Your task to perform on an android device: Open Google Maps and go to "Timeline" Image 0: 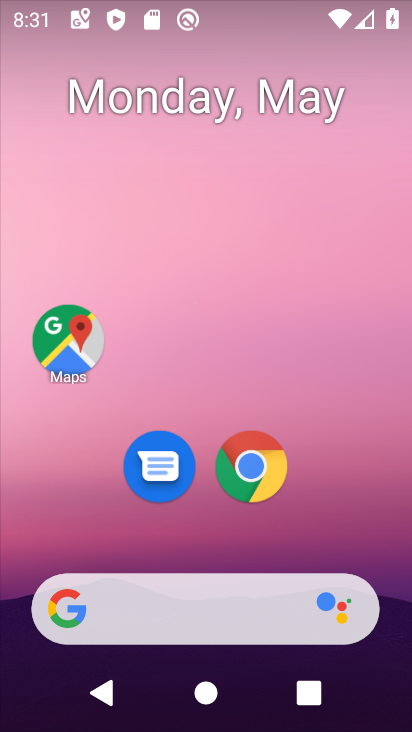
Step 0: press home button
Your task to perform on an android device: Open Google Maps and go to "Timeline" Image 1: 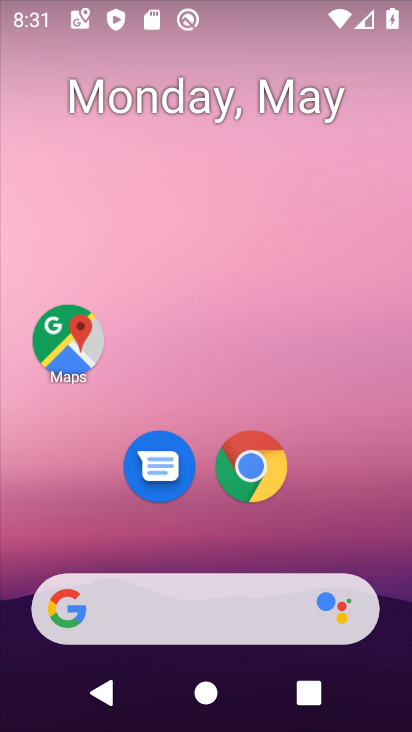
Step 1: drag from (251, 518) to (276, 19)
Your task to perform on an android device: Open Google Maps and go to "Timeline" Image 2: 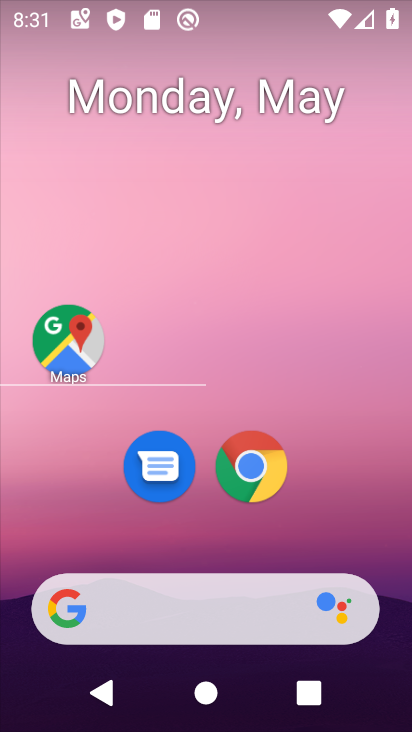
Step 2: click (85, 469)
Your task to perform on an android device: Open Google Maps and go to "Timeline" Image 3: 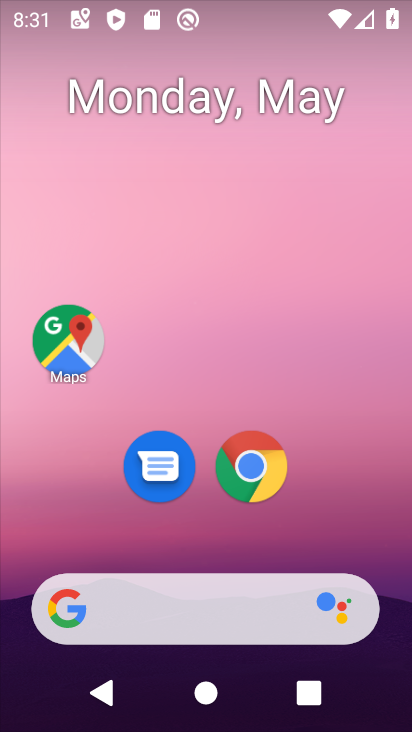
Step 3: drag from (237, 651) to (261, 21)
Your task to perform on an android device: Open Google Maps and go to "Timeline" Image 4: 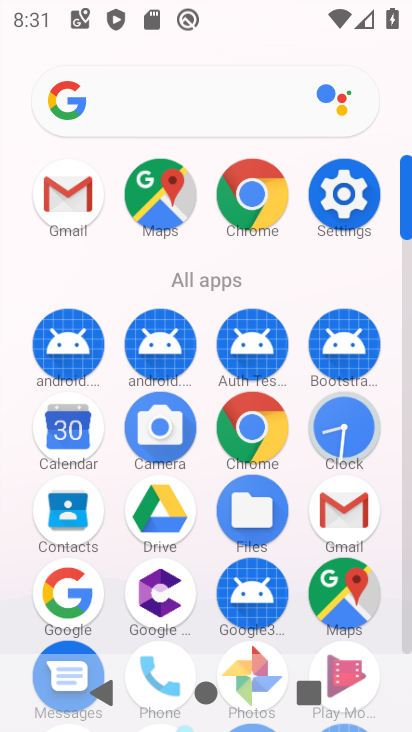
Step 4: click (183, 193)
Your task to perform on an android device: Open Google Maps and go to "Timeline" Image 5: 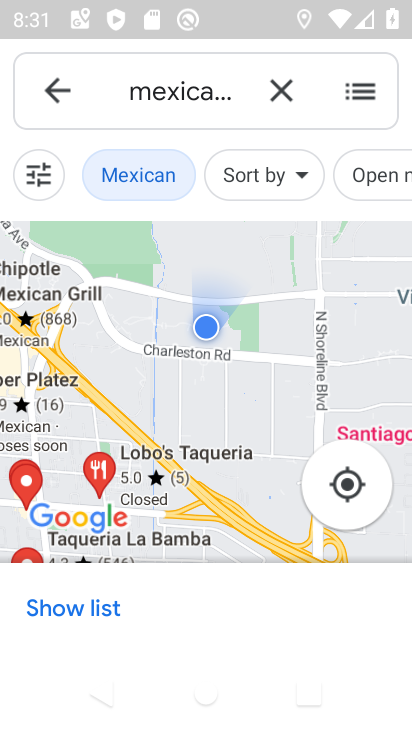
Step 5: click (52, 96)
Your task to perform on an android device: Open Google Maps and go to "Timeline" Image 6: 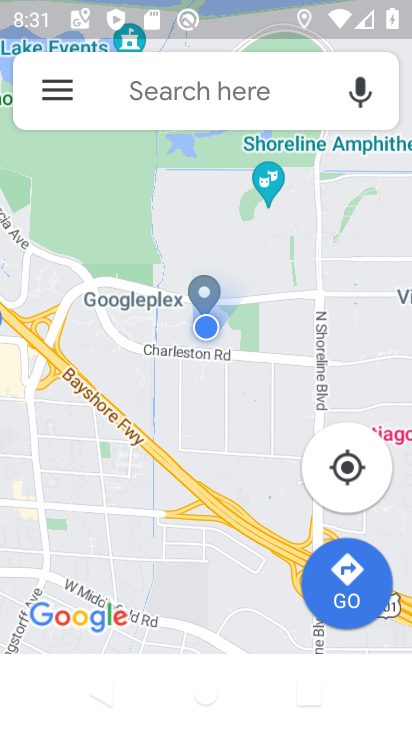
Step 6: click (52, 96)
Your task to perform on an android device: Open Google Maps and go to "Timeline" Image 7: 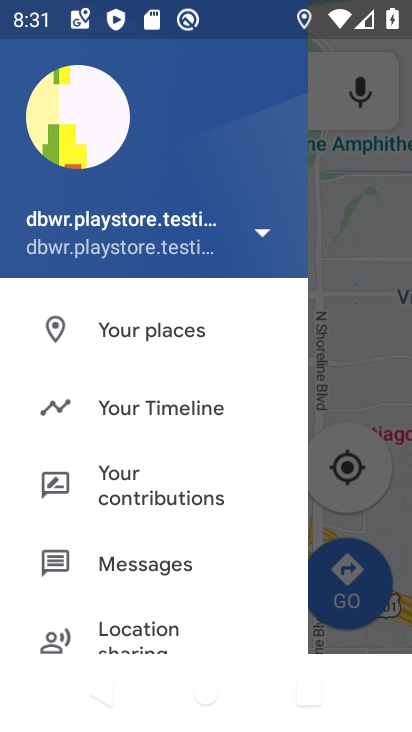
Step 7: click (144, 411)
Your task to perform on an android device: Open Google Maps and go to "Timeline" Image 8: 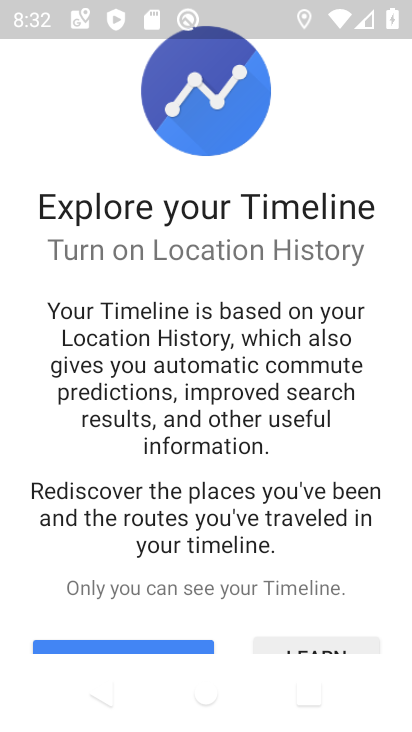
Step 8: drag from (227, 582) to (230, 395)
Your task to perform on an android device: Open Google Maps and go to "Timeline" Image 9: 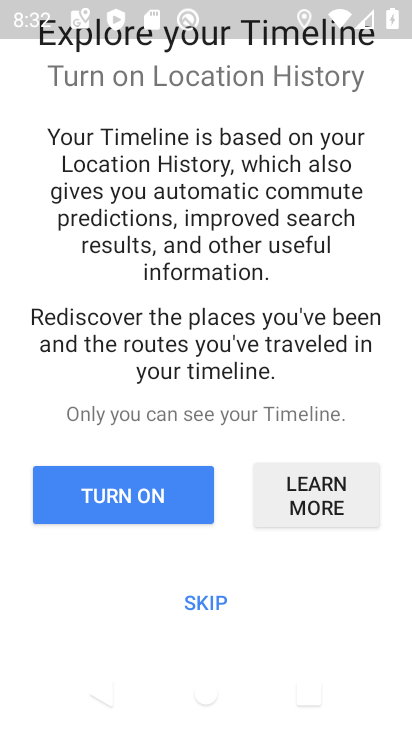
Step 9: click (208, 590)
Your task to perform on an android device: Open Google Maps and go to "Timeline" Image 10: 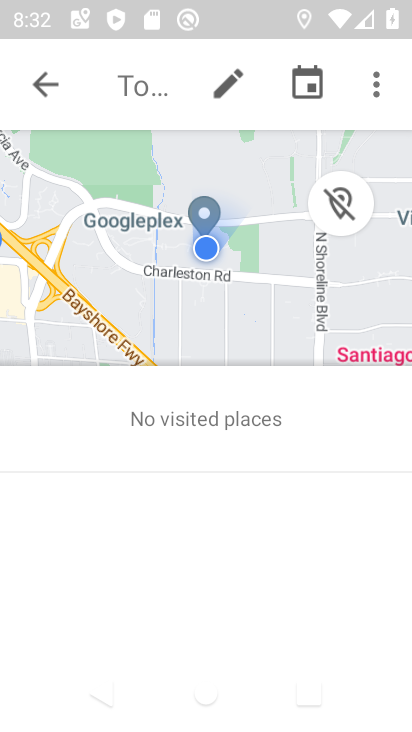
Step 10: task complete